Your task to perform on an android device: turn on the 24-hour format for clock Image 0: 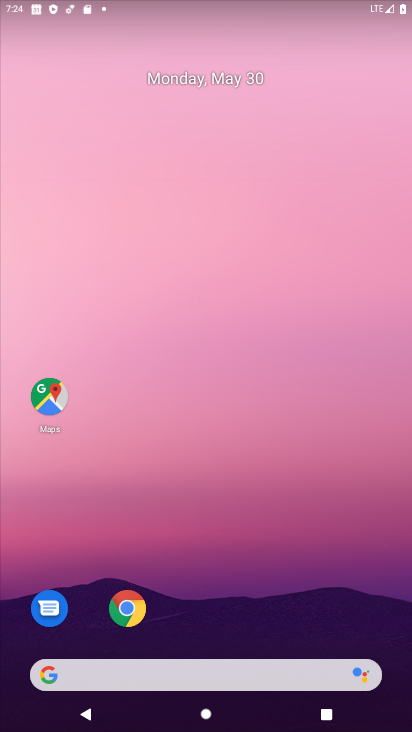
Step 0: drag from (298, 602) to (364, 247)
Your task to perform on an android device: turn on the 24-hour format for clock Image 1: 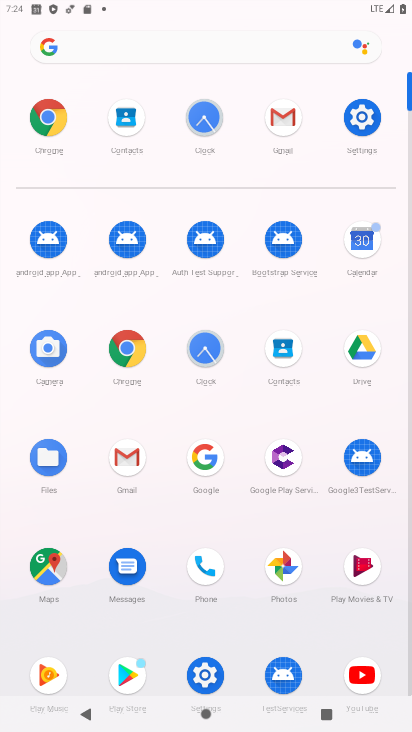
Step 1: click (203, 354)
Your task to perform on an android device: turn on the 24-hour format for clock Image 2: 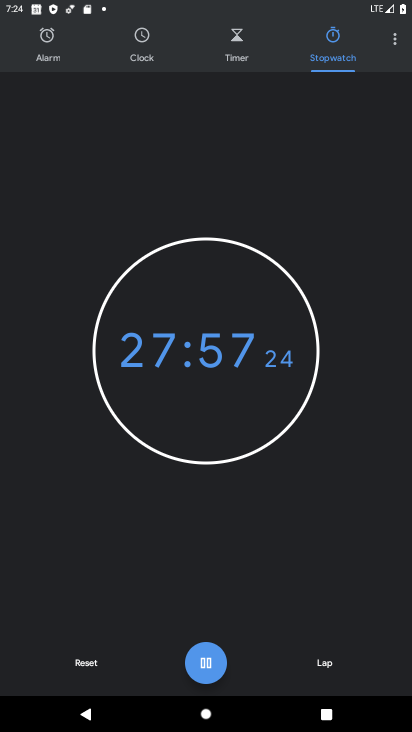
Step 2: click (59, 58)
Your task to perform on an android device: turn on the 24-hour format for clock Image 3: 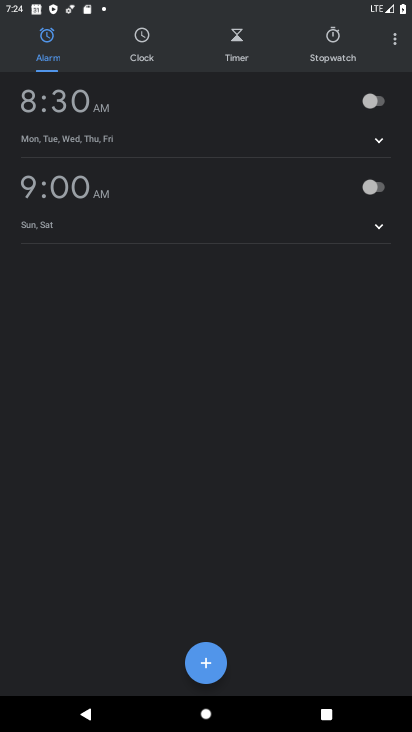
Step 3: click (397, 37)
Your task to perform on an android device: turn on the 24-hour format for clock Image 4: 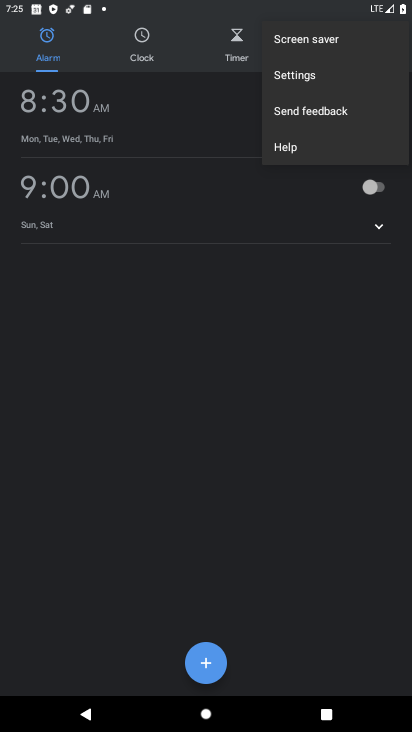
Step 4: click (277, 79)
Your task to perform on an android device: turn on the 24-hour format for clock Image 5: 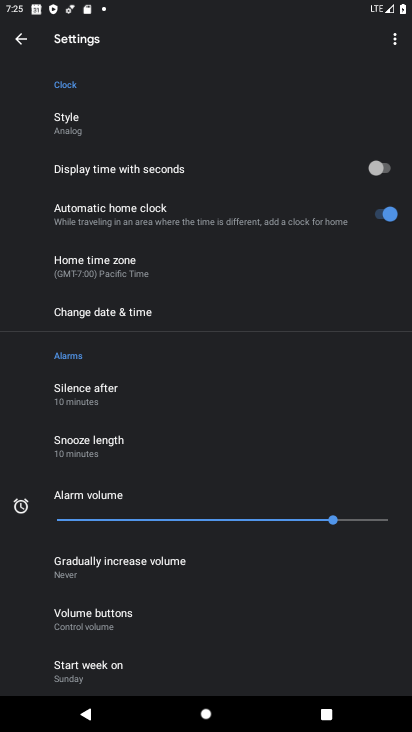
Step 5: click (136, 318)
Your task to perform on an android device: turn on the 24-hour format for clock Image 6: 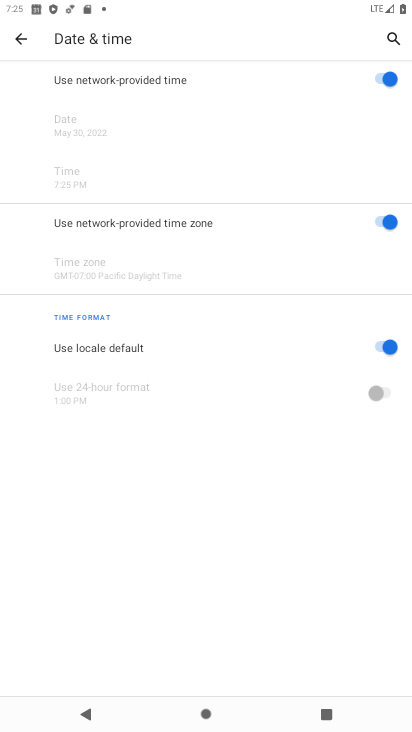
Step 6: click (386, 351)
Your task to perform on an android device: turn on the 24-hour format for clock Image 7: 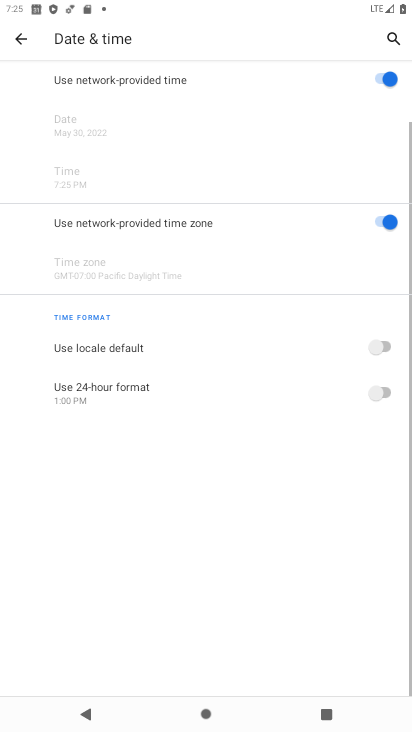
Step 7: click (377, 391)
Your task to perform on an android device: turn on the 24-hour format for clock Image 8: 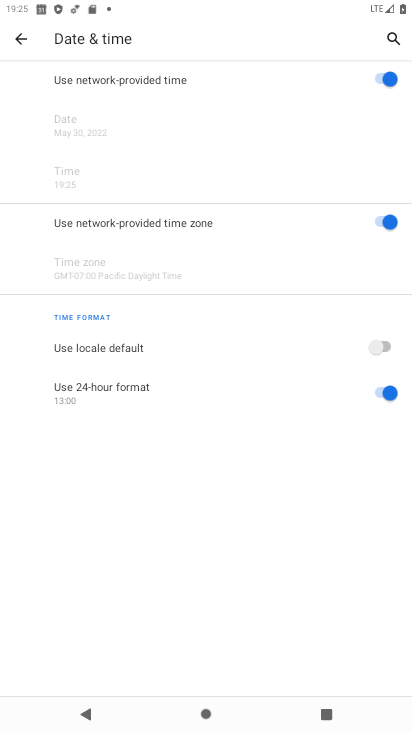
Step 8: task complete